Your task to perform on an android device: Show the shopping cart on ebay. Add razer naga to the cart on ebay Image 0: 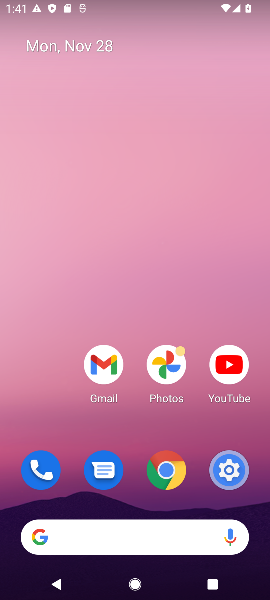
Step 0: task complete